Your task to perform on an android device: Show the shopping cart on amazon. Search for "amazon basics triple a" on amazon, select the first entry, add it to the cart, then select checkout. Image 0: 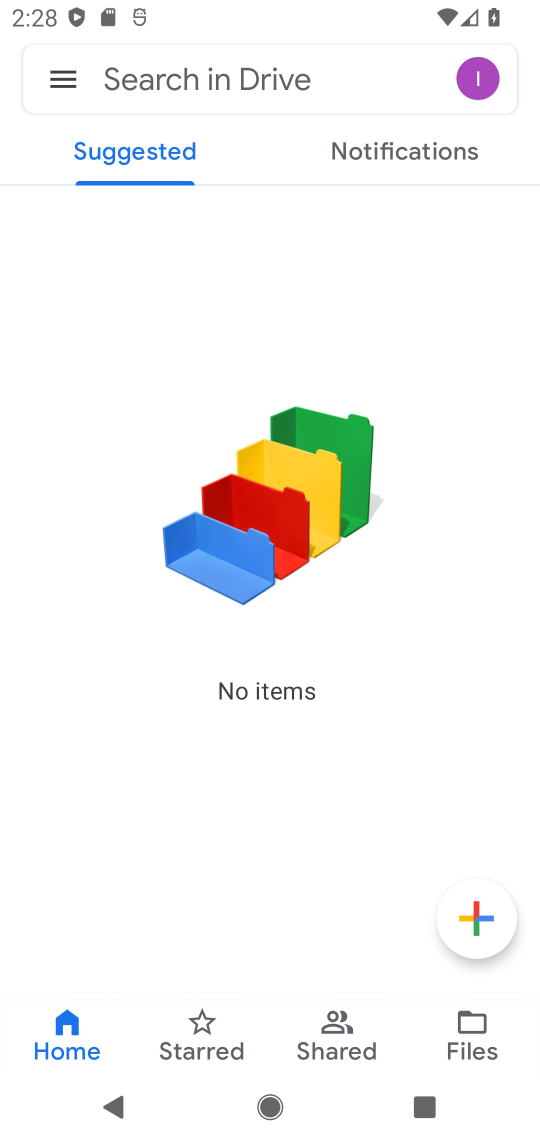
Step 0: press home button
Your task to perform on an android device: Show the shopping cart on amazon. Search for "amazon basics triple a" on amazon, select the first entry, add it to the cart, then select checkout. Image 1: 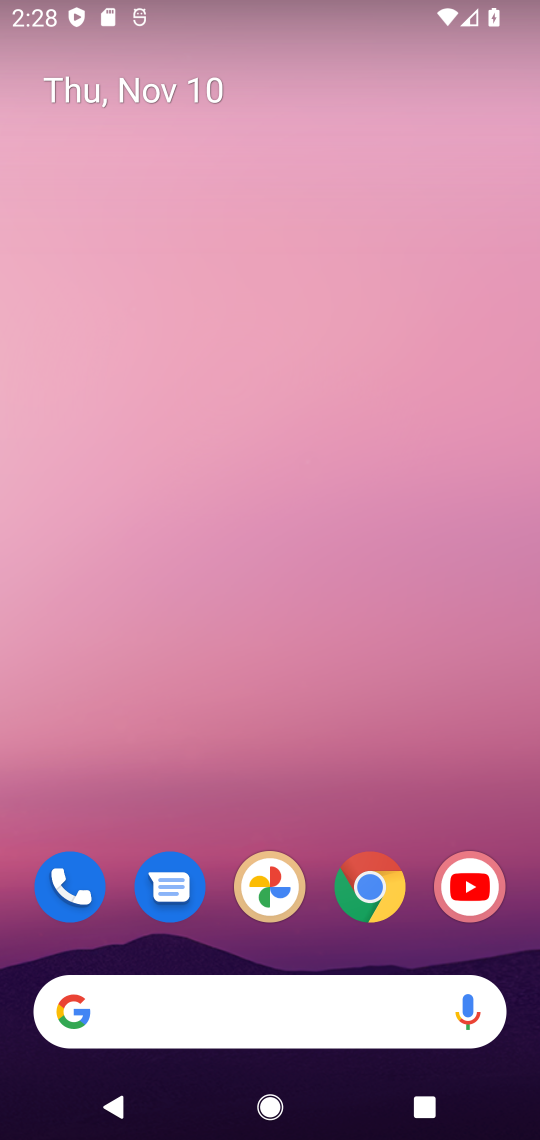
Step 1: drag from (339, 784) to (415, 2)
Your task to perform on an android device: Show the shopping cart on amazon. Search for "amazon basics triple a" on amazon, select the first entry, add it to the cart, then select checkout. Image 2: 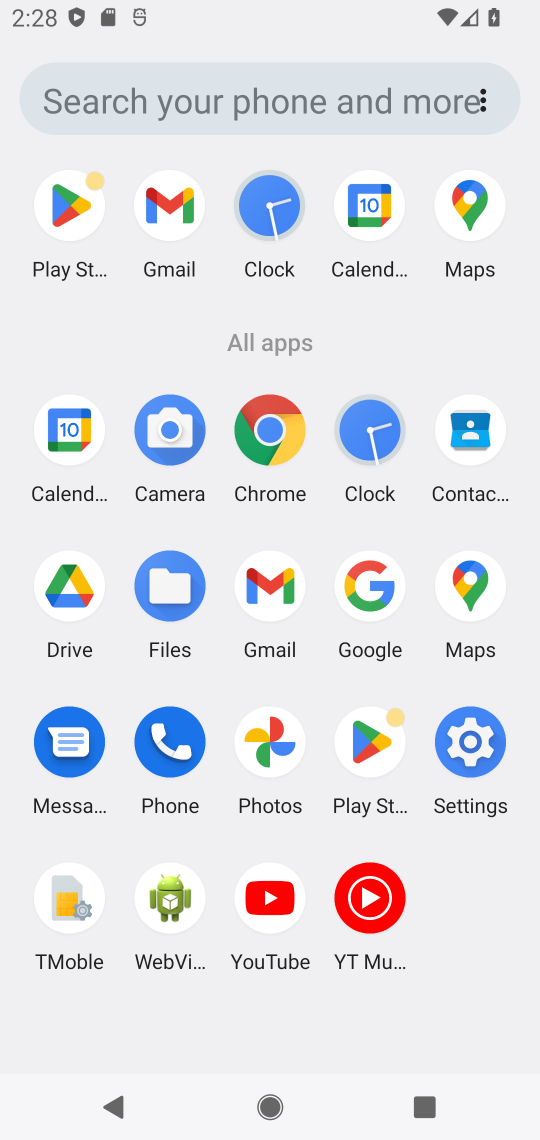
Step 2: click (273, 430)
Your task to perform on an android device: Show the shopping cart on amazon. Search for "amazon basics triple a" on amazon, select the first entry, add it to the cart, then select checkout. Image 3: 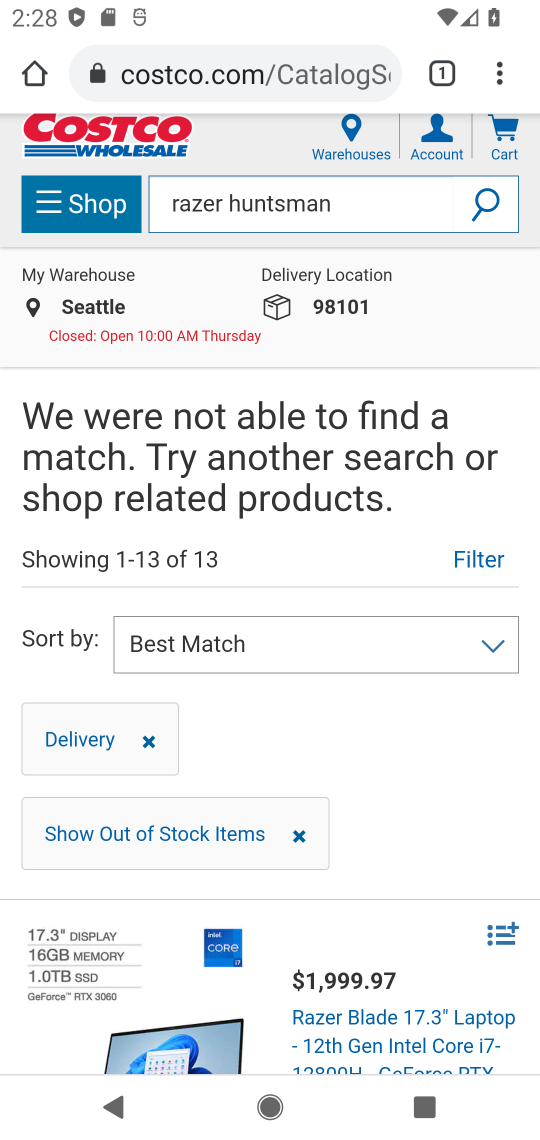
Step 3: click (261, 67)
Your task to perform on an android device: Show the shopping cart on amazon. Search for "amazon basics triple a" on amazon, select the first entry, add it to the cart, then select checkout. Image 4: 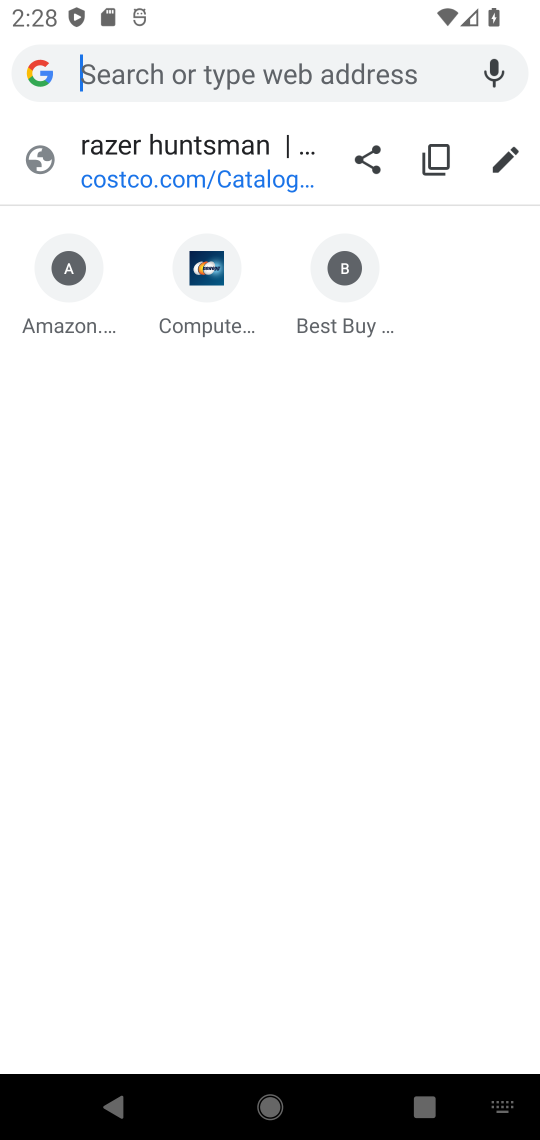
Step 4: type "amazon.com"
Your task to perform on an android device: Show the shopping cart on amazon. Search for "amazon basics triple a" on amazon, select the first entry, add it to the cart, then select checkout. Image 5: 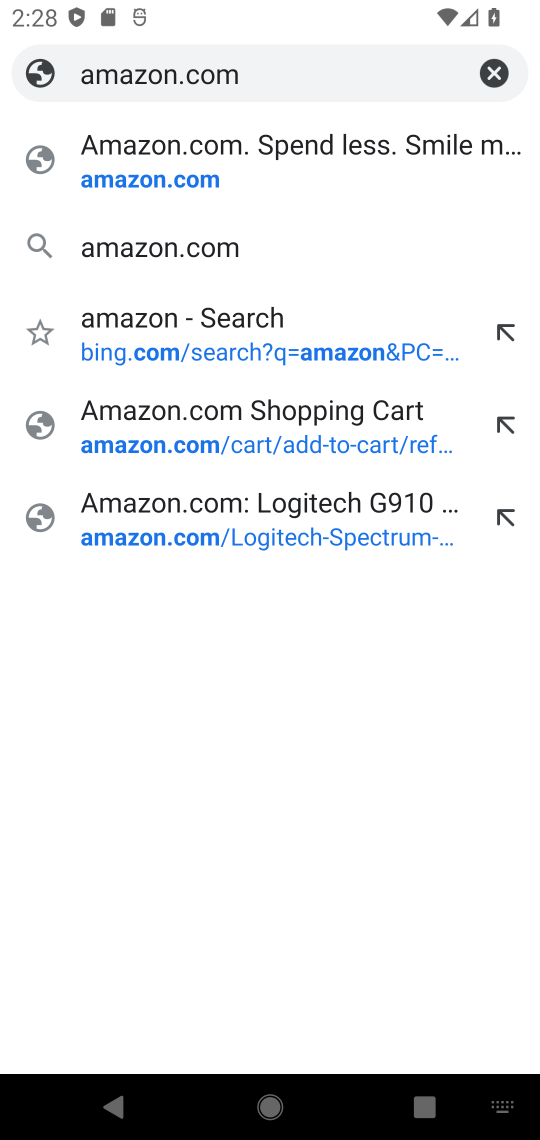
Step 5: press enter
Your task to perform on an android device: Show the shopping cart on amazon. Search for "amazon basics triple a" on amazon, select the first entry, add it to the cart, then select checkout. Image 6: 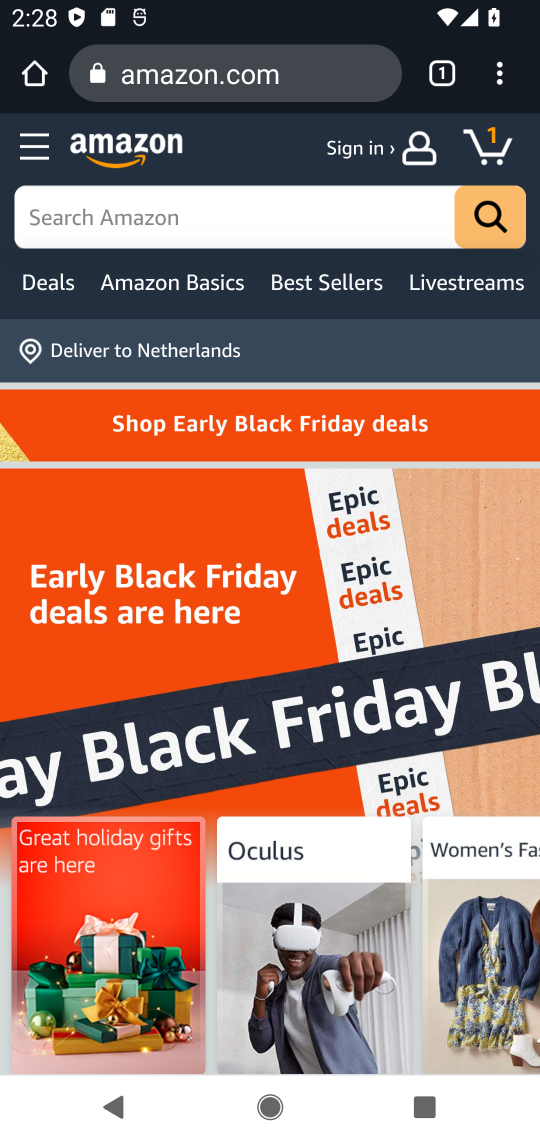
Step 6: click (481, 135)
Your task to perform on an android device: Show the shopping cart on amazon. Search for "amazon basics triple a" on amazon, select the first entry, add it to the cart, then select checkout. Image 7: 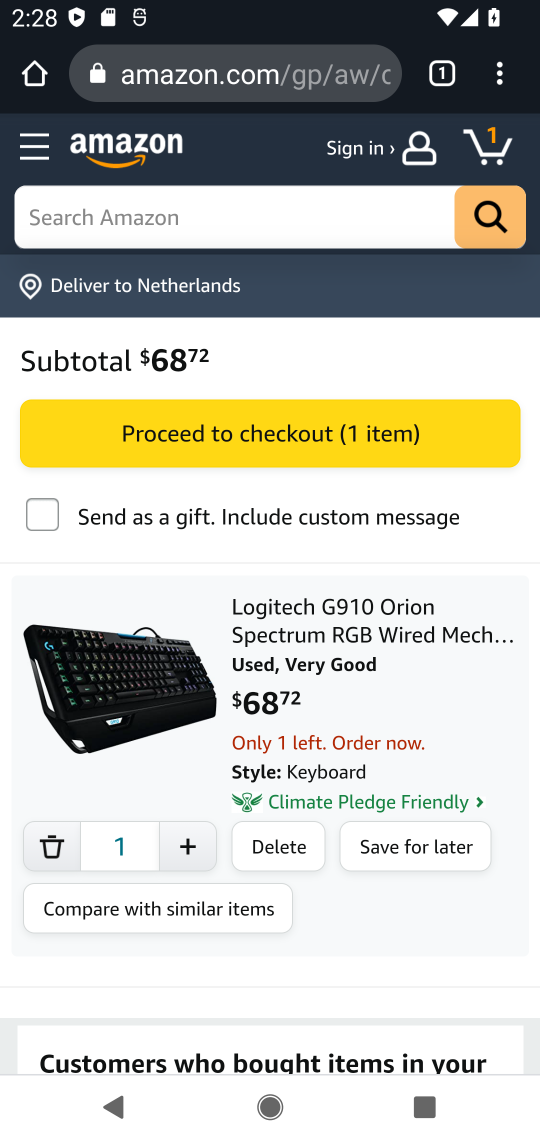
Step 7: click (156, 227)
Your task to perform on an android device: Show the shopping cart on amazon. Search for "amazon basics triple a" on amazon, select the first entry, add it to the cart, then select checkout. Image 8: 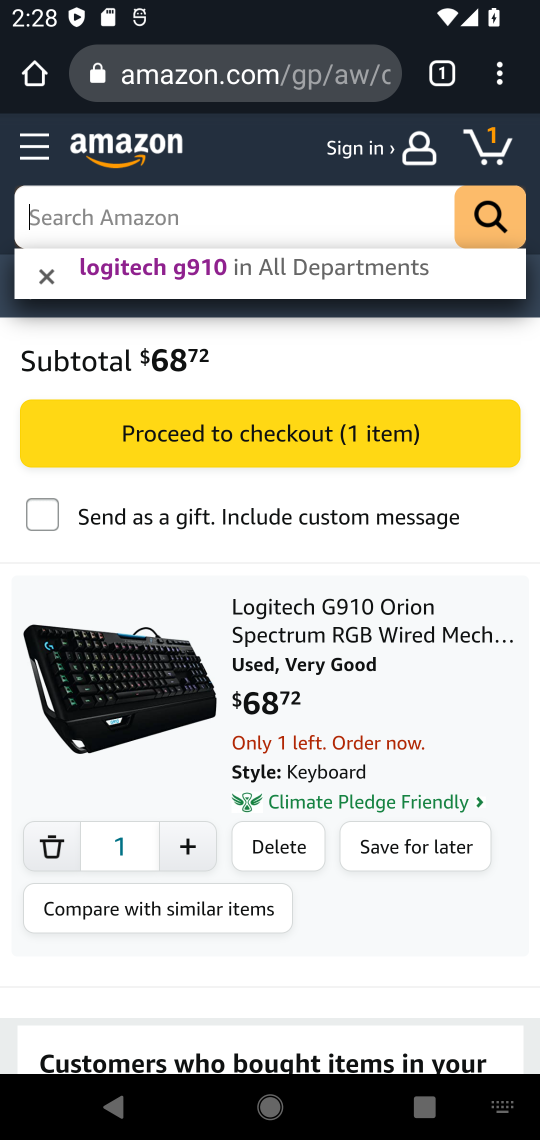
Step 8: type "amazon basics triple a"
Your task to perform on an android device: Show the shopping cart on amazon. Search for "amazon basics triple a" on amazon, select the first entry, add it to the cart, then select checkout. Image 9: 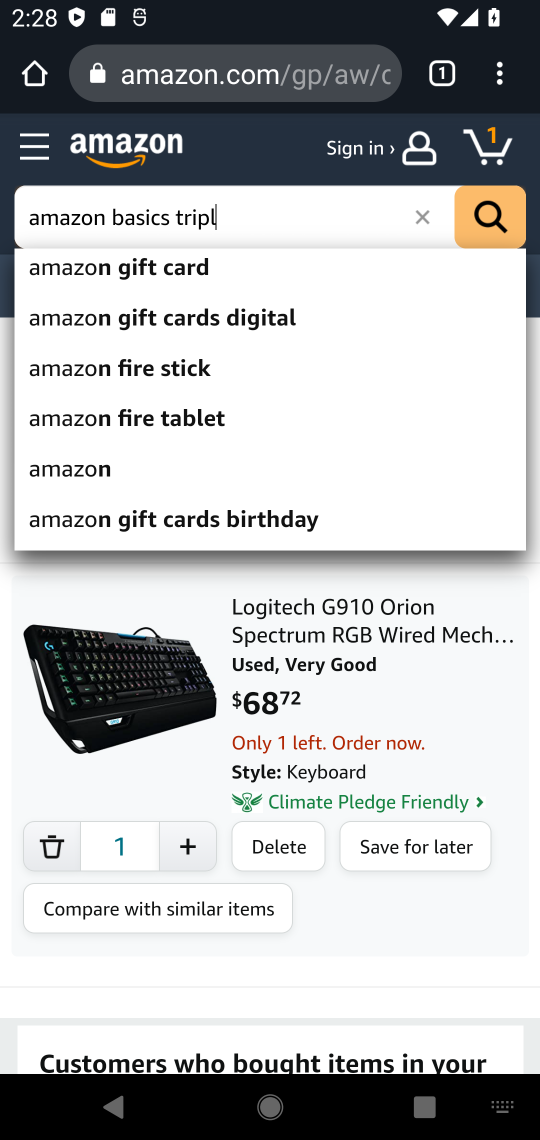
Step 9: press enter
Your task to perform on an android device: Show the shopping cart on amazon. Search for "amazon basics triple a" on amazon, select the first entry, add it to the cart, then select checkout. Image 10: 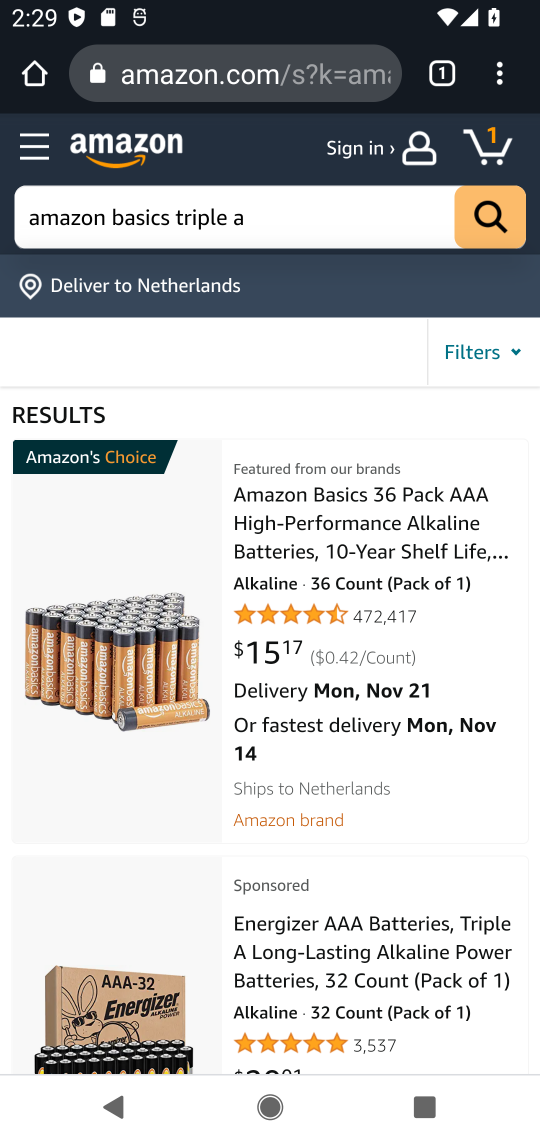
Step 10: drag from (323, 997) to (444, 270)
Your task to perform on an android device: Show the shopping cart on amazon. Search for "amazon basics triple a" on amazon, select the first entry, add it to the cart, then select checkout. Image 11: 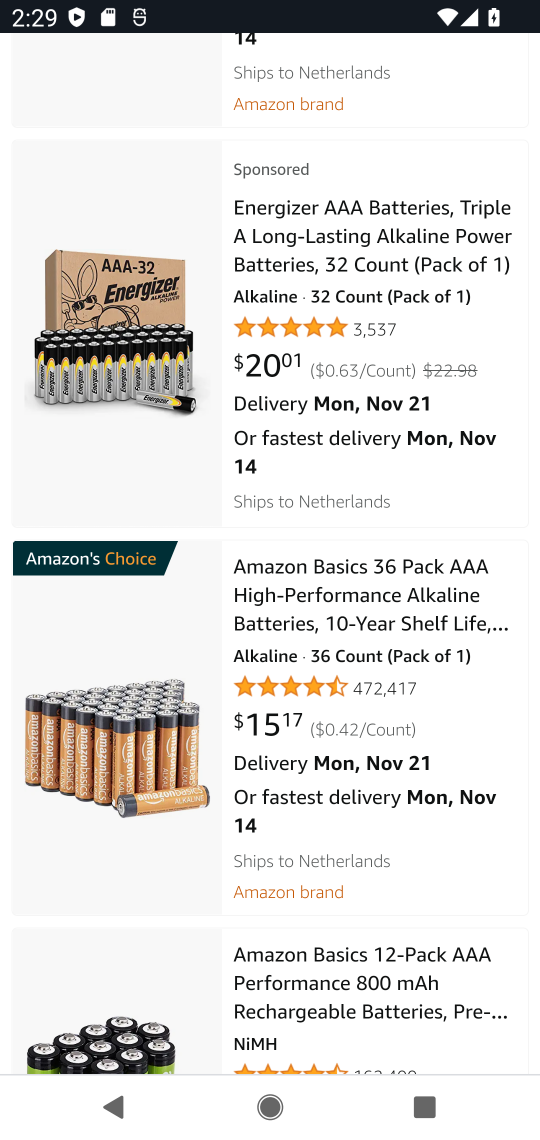
Step 11: click (321, 628)
Your task to perform on an android device: Show the shopping cart on amazon. Search for "amazon basics triple a" on amazon, select the first entry, add it to the cart, then select checkout. Image 12: 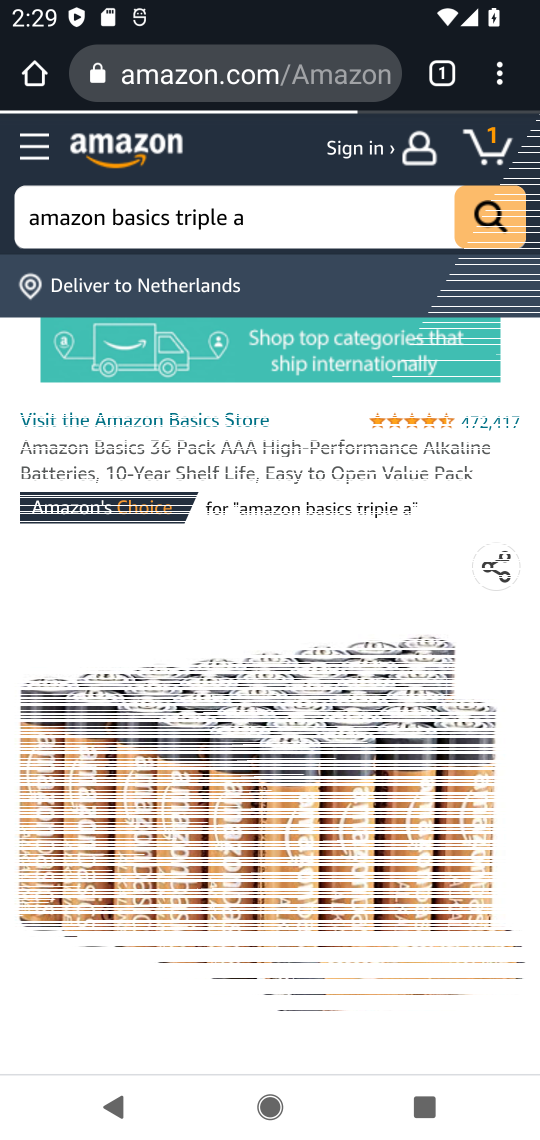
Step 12: drag from (375, 912) to (366, 405)
Your task to perform on an android device: Show the shopping cart on amazon. Search for "amazon basics triple a" on amazon, select the first entry, add it to the cart, then select checkout. Image 13: 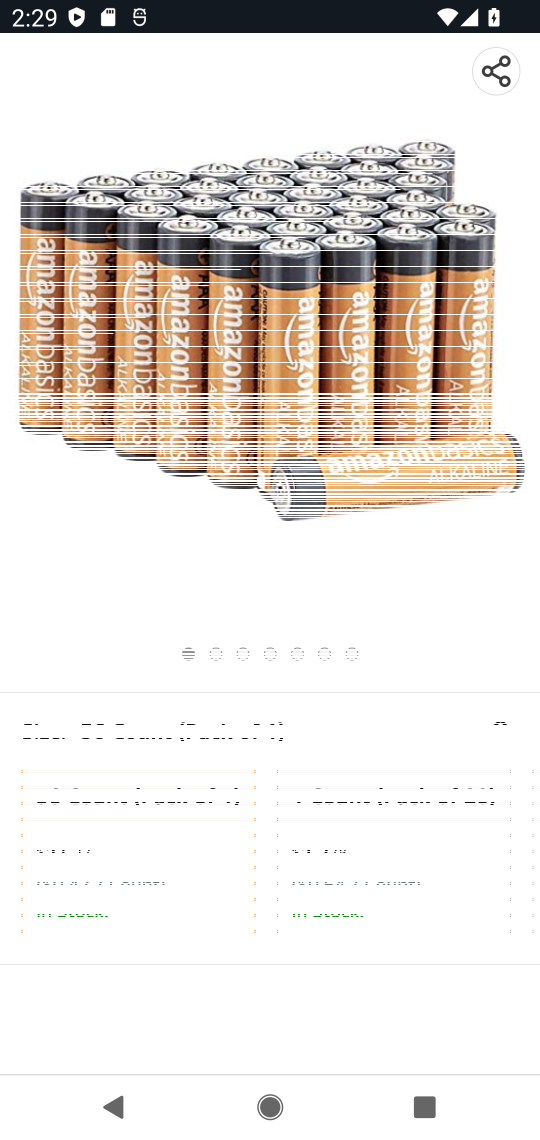
Step 13: drag from (258, 892) to (209, 395)
Your task to perform on an android device: Show the shopping cart on amazon. Search for "amazon basics triple a" on amazon, select the first entry, add it to the cart, then select checkout. Image 14: 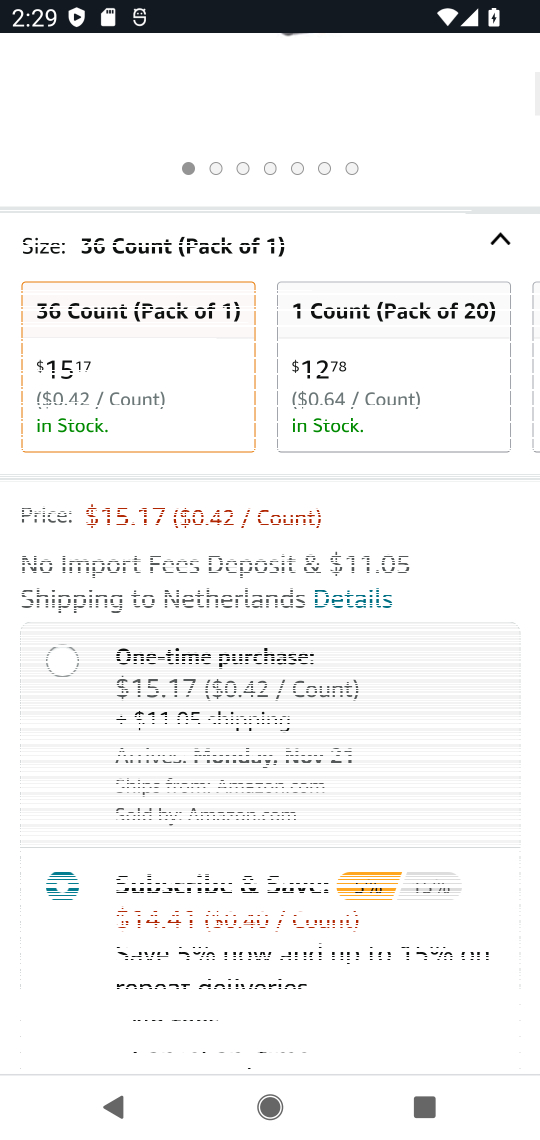
Step 14: drag from (299, 801) to (308, 252)
Your task to perform on an android device: Show the shopping cart on amazon. Search for "amazon basics triple a" on amazon, select the first entry, add it to the cart, then select checkout. Image 15: 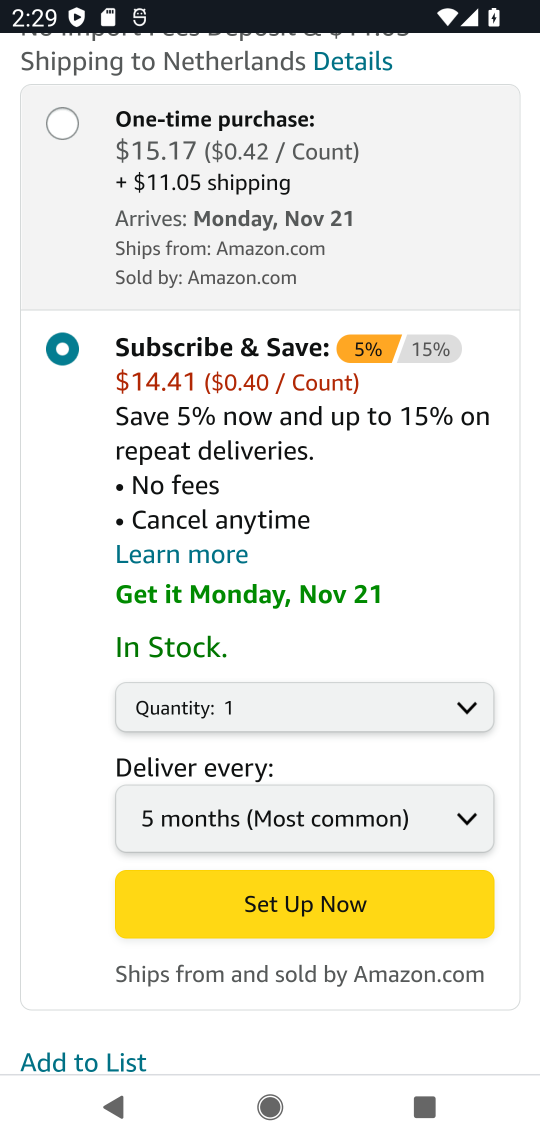
Step 15: click (236, 140)
Your task to perform on an android device: Show the shopping cart on amazon. Search for "amazon basics triple a" on amazon, select the first entry, add it to the cart, then select checkout. Image 16: 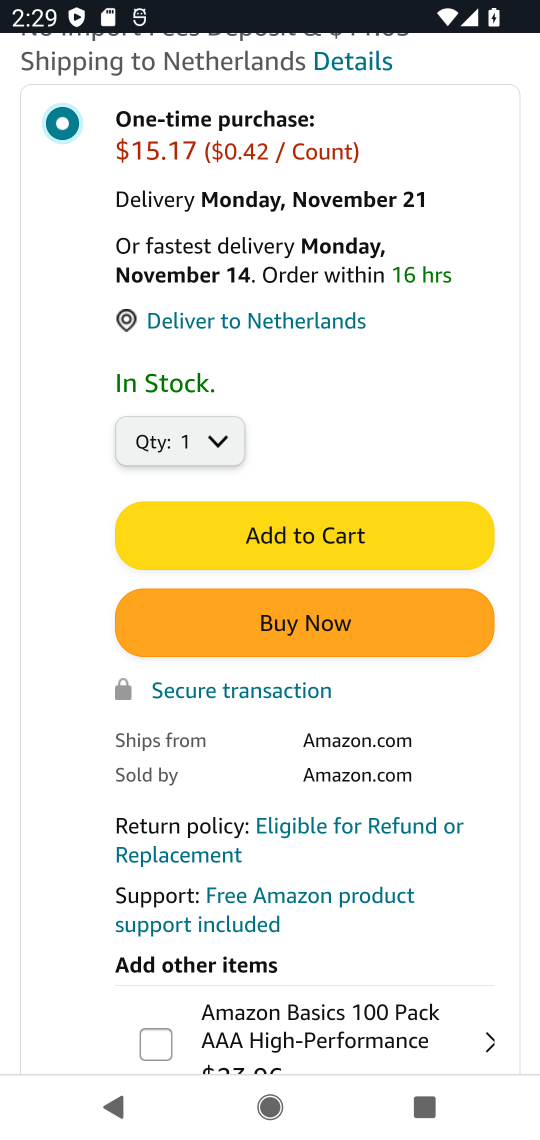
Step 16: click (353, 545)
Your task to perform on an android device: Show the shopping cart on amazon. Search for "amazon basics triple a" on amazon, select the first entry, add it to the cart, then select checkout. Image 17: 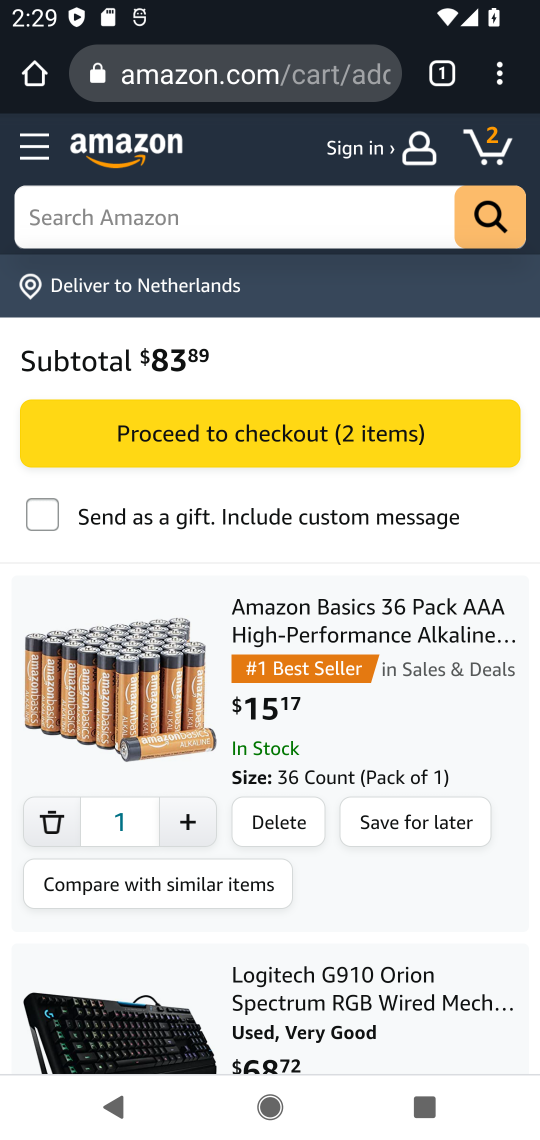
Step 17: click (392, 453)
Your task to perform on an android device: Show the shopping cart on amazon. Search for "amazon basics triple a" on amazon, select the first entry, add it to the cart, then select checkout. Image 18: 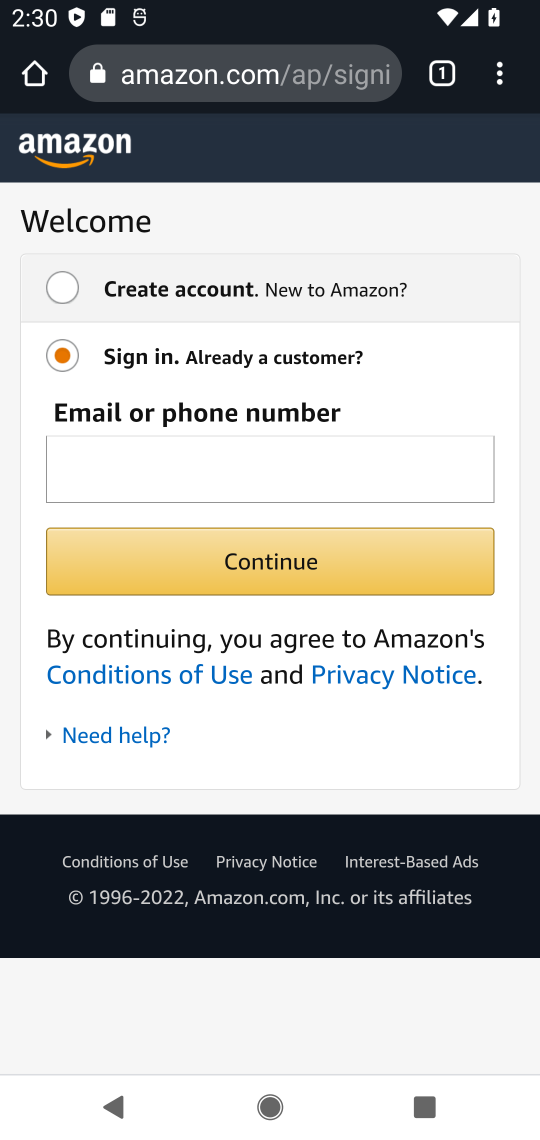
Step 18: task complete